Your task to perform on an android device: turn on the 24-hour format for clock Image 0: 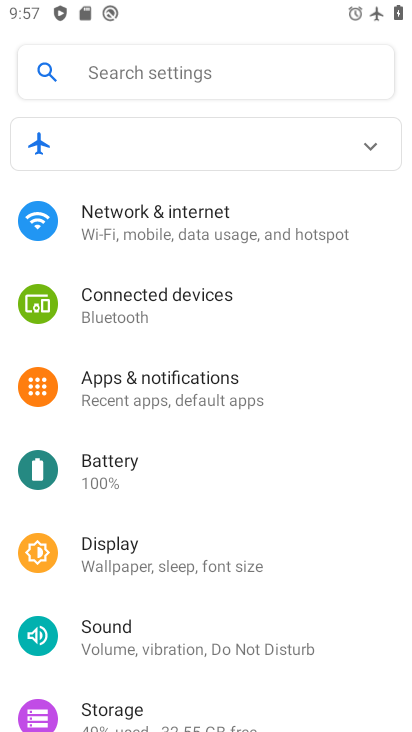
Step 0: press home button
Your task to perform on an android device: turn on the 24-hour format for clock Image 1: 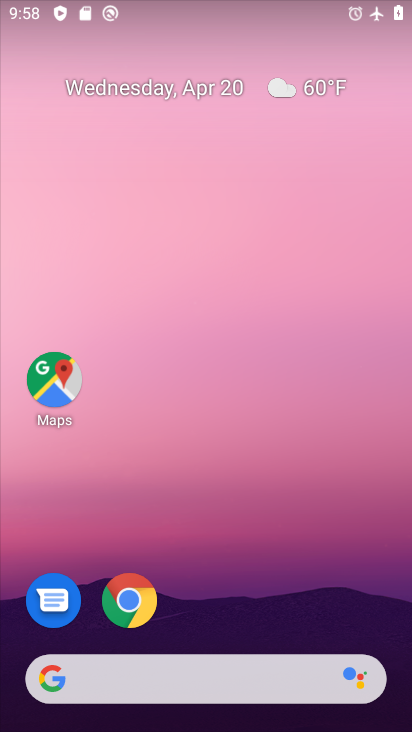
Step 1: drag from (201, 640) to (395, 0)
Your task to perform on an android device: turn on the 24-hour format for clock Image 2: 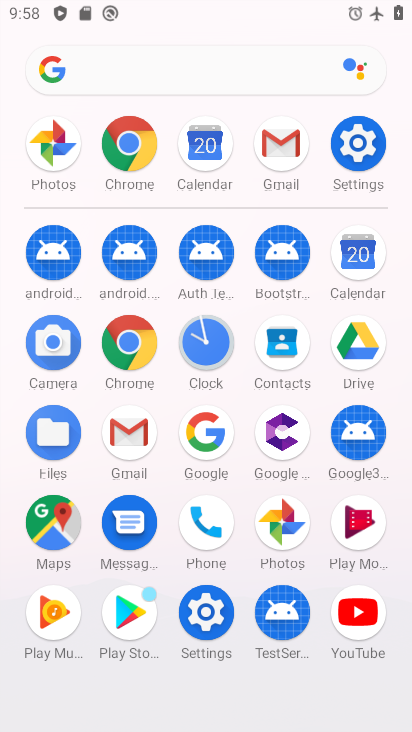
Step 2: click (211, 346)
Your task to perform on an android device: turn on the 24-hour format for clock Image 3: 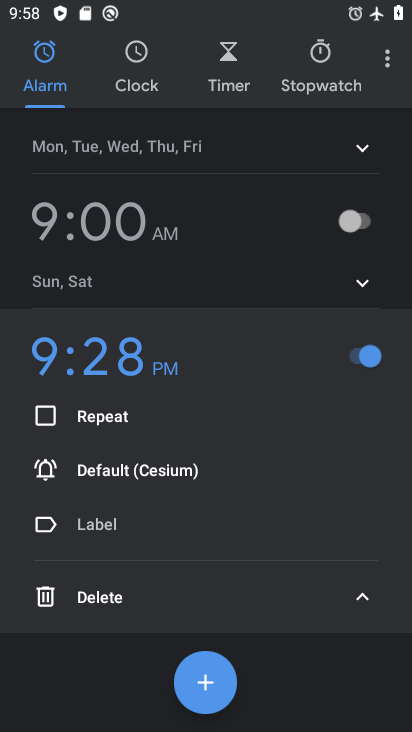
Step 3: click (380, 67)
Your task to perform on an android device: turn on the 24-hour format for clock Image 4: 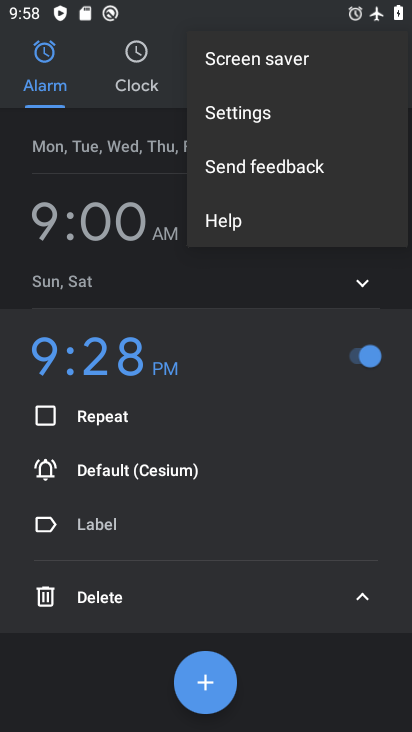
Step 4: click (265, 116)
Your task to perform on an android device: turn on the 24-hour format for clock Image 5: 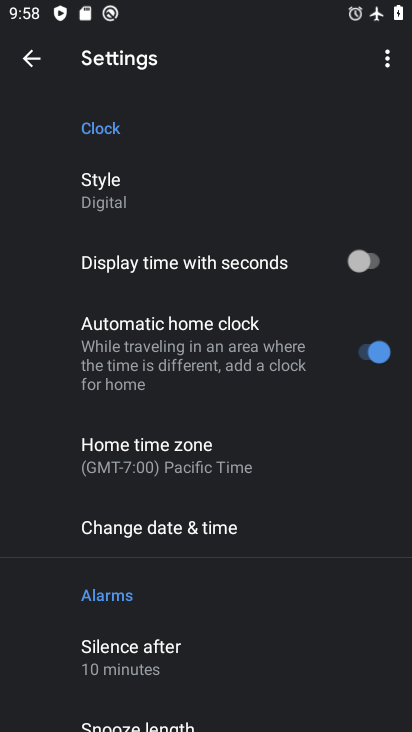
Step 5: drag from (208, 646) to (167, 421)
Your task to perform on an android device: turn on the 24-hour format for clock Image 6: 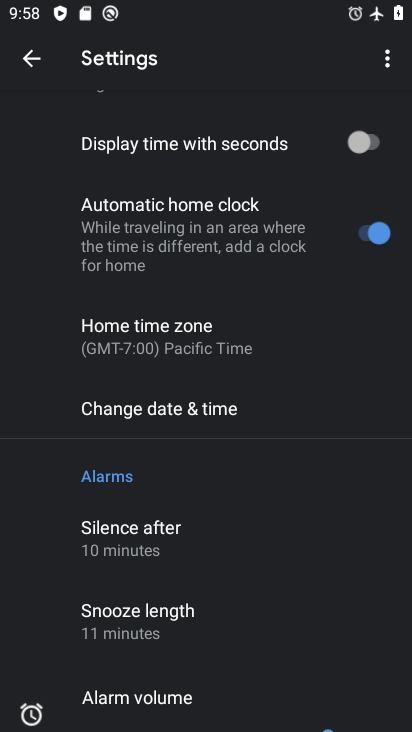
Step 6: click (158, 407)
Your task to perform on an android device: turn on the 24-hour format for clock Image 7: 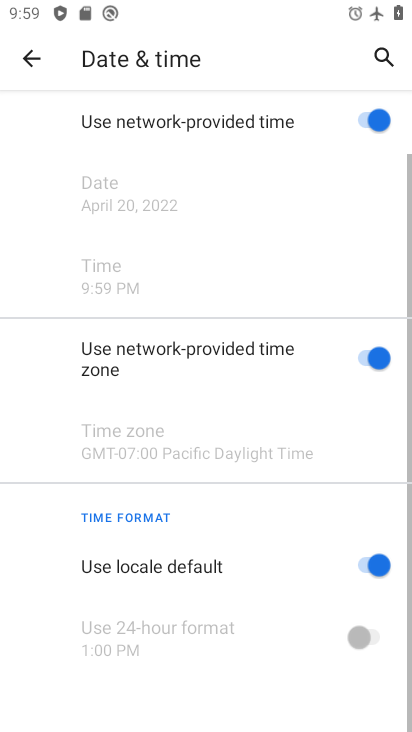
Step 7: click (364, 567)
Your task to perform on an android device: turn on the 24-hour format for clock Image 8: 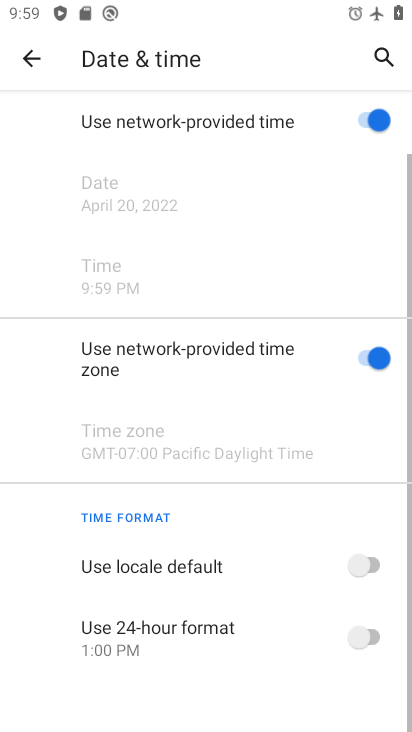
Step 8: click (365, 642)
Your task to perform on an android device: turn on the 24-hour format for clock Image 9: 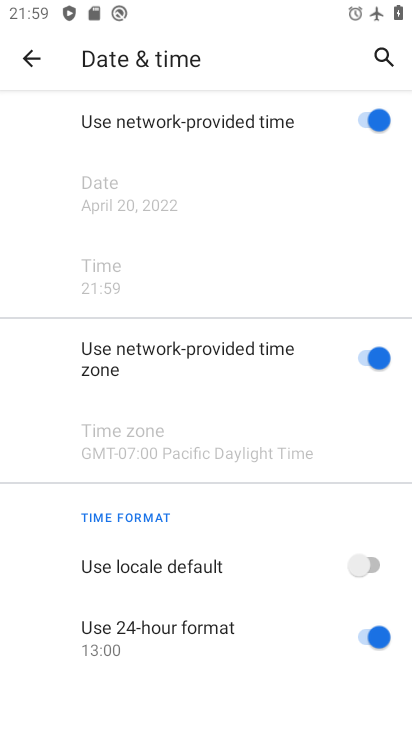
Step 9: task complete